Your task to perform on an android device: clear all cookies in the chrome app Image 0: 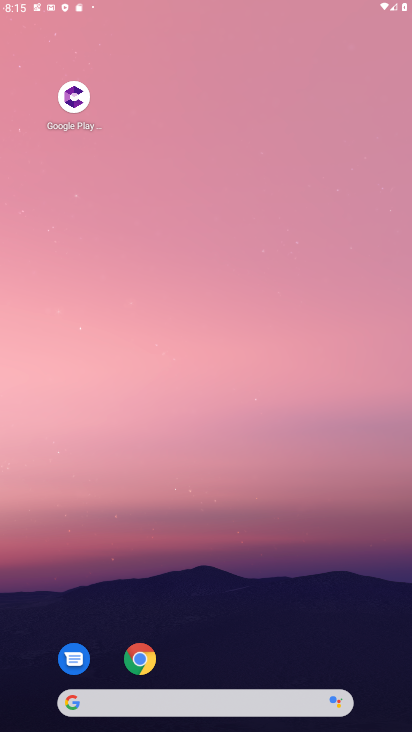
Step 0: drag from (257, 356) to (272, 48)
Your task to perform on an android device: clear all cookies in the chrome app Image 1: 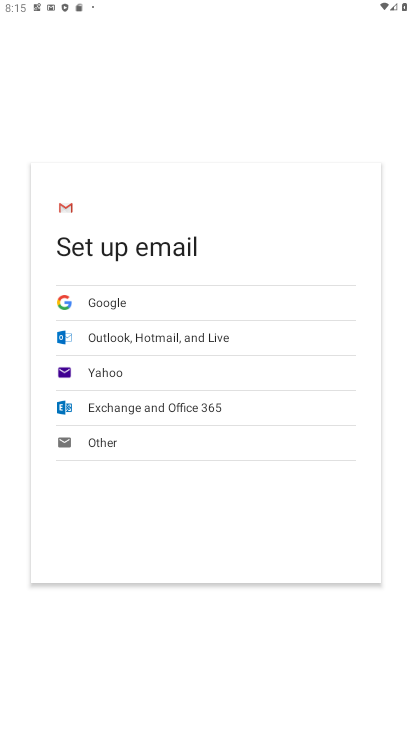
Step 1: press home button
Your task to perform on an android device: clear all cookies in the chrome app Image 2: 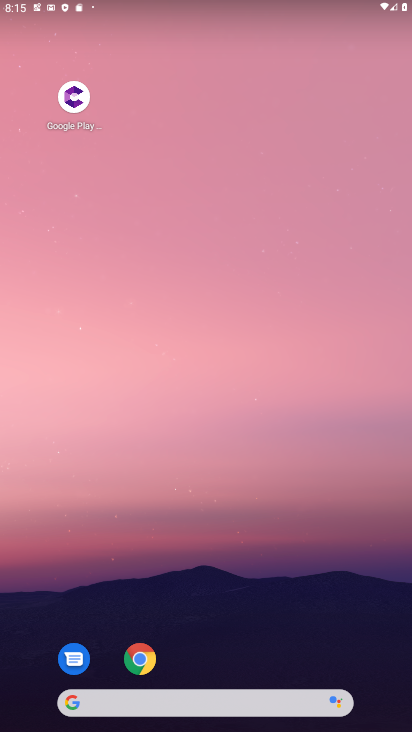
Step 2: drag from (268, 645) to (239, 81)
Your task to perform on an android device: clear all cookies in the chrome app Image 3: 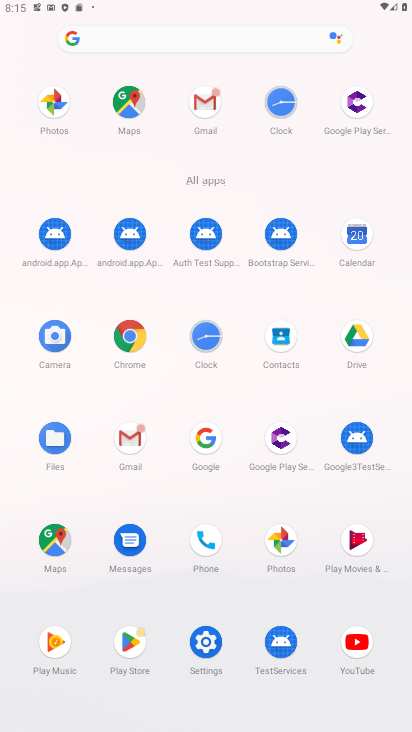
Step 3: click (127, 330)
Your task to perform on an android device: clear all cookies in the chrome app Image 4: 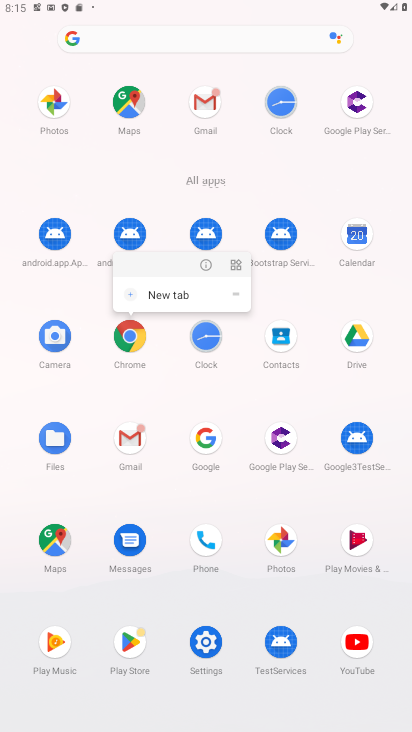
Step 4: click (116, 338)
Your task to perform on an android device: clear all cookies in the chrome app Image 5: 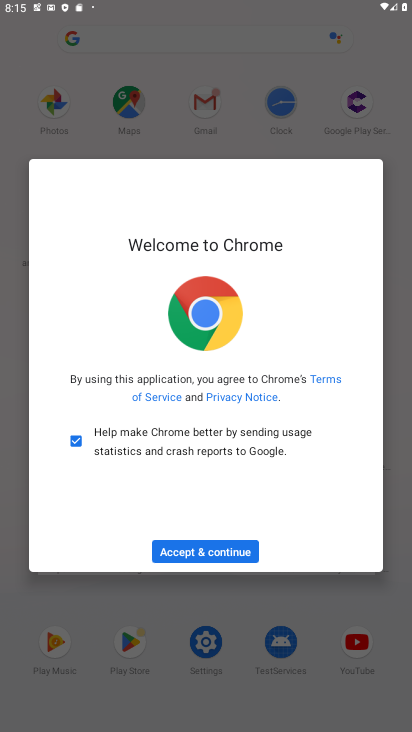
Step 5: click (243, 550)
Your task to perform on an android device: clear all cookies in the chrome app Image 6: 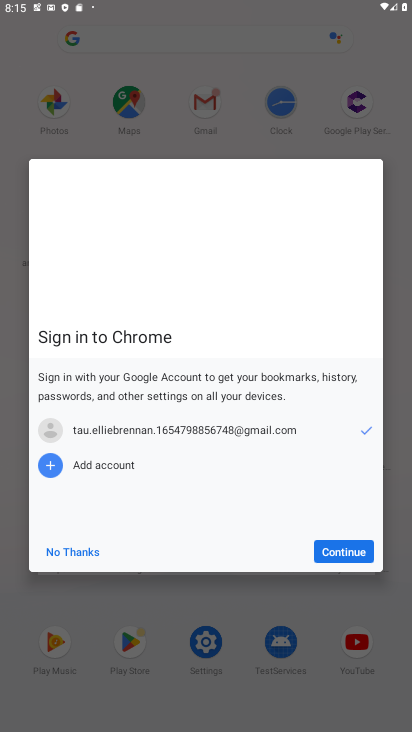
Step 6: click (342, 551)
Your task to perform on an android device: clear all cookies in the chrome app Image 7: 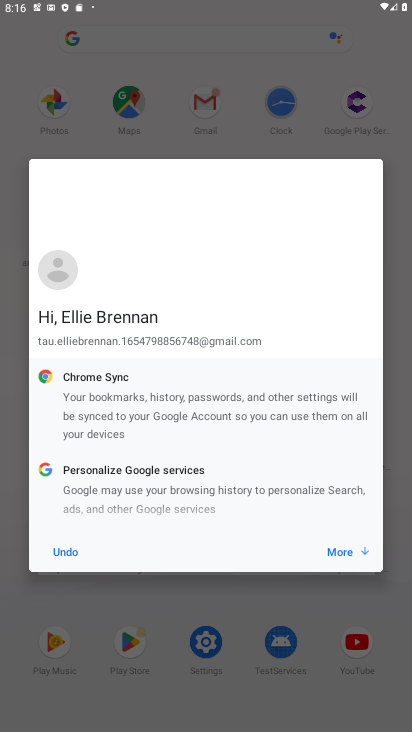
Step 7: click (342, 543)
Your task to perform on an android device: clear all cookies in the chrome app Image 8: 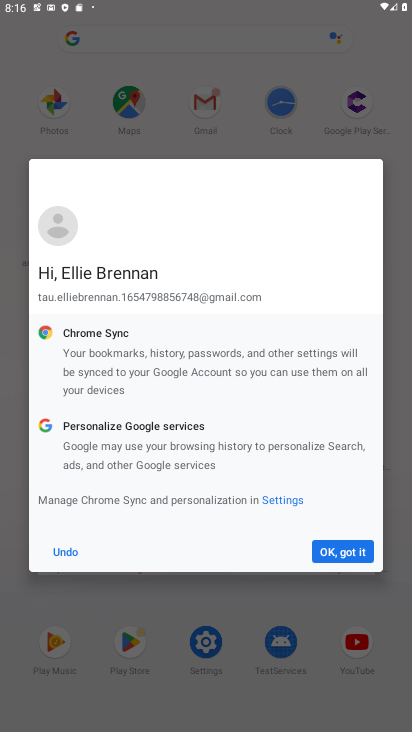
Step 8: click (342, 543)
Your task to perform on an android device: clear all cookies in the chrome app Image 9: 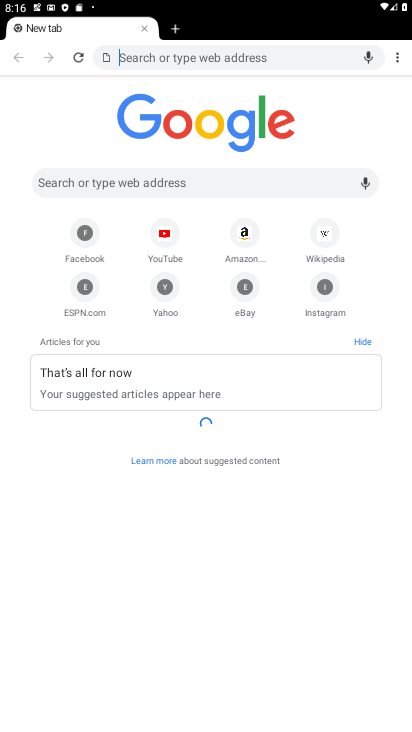
Step 9: drag from (398, 54) to (285, 263)
Your task to perform on an android device: clear all cookies in the chrome app Image 10: 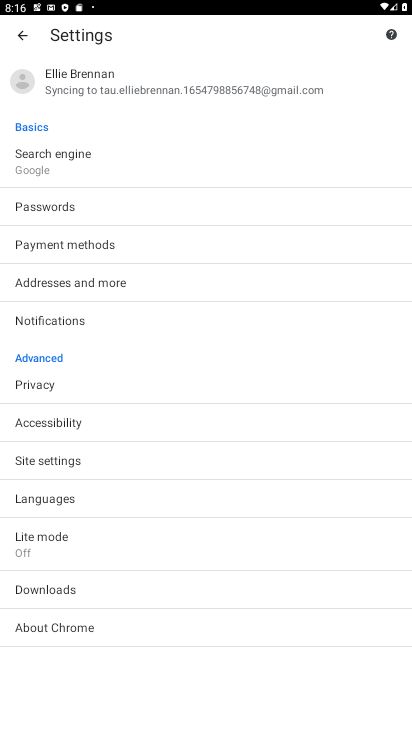
Step 10: click (46, 451)
Your task to perform on an android device: clear all cookies in the chrome app Image 11: 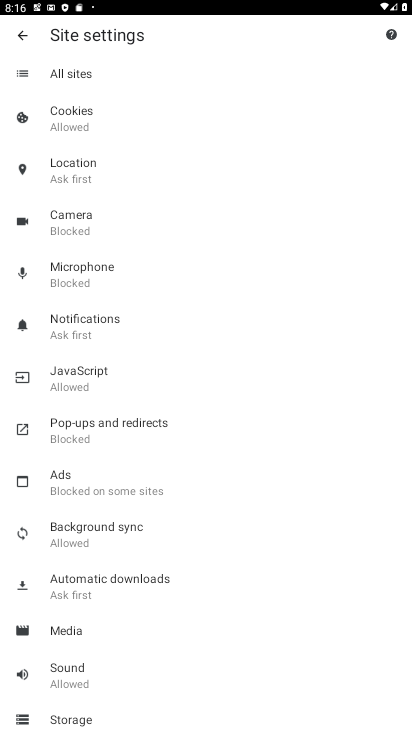
Step 11: click (76, 115)
Your task to perform on an android device: clear all cookies in the chrome app Image 12: 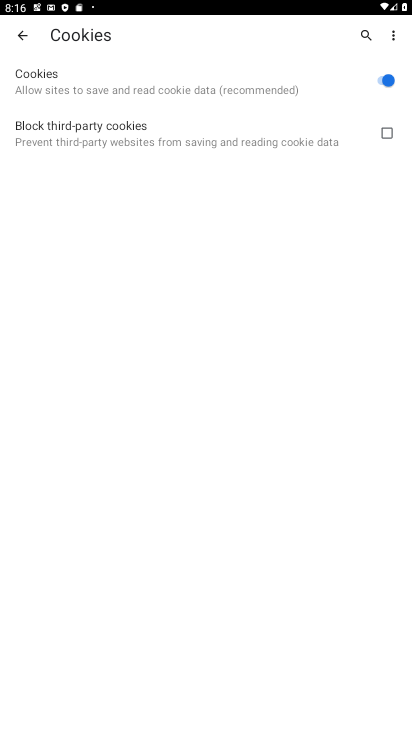
Step 12: task complete